Your task to perform on an android device: toggle notification dots Image 0: 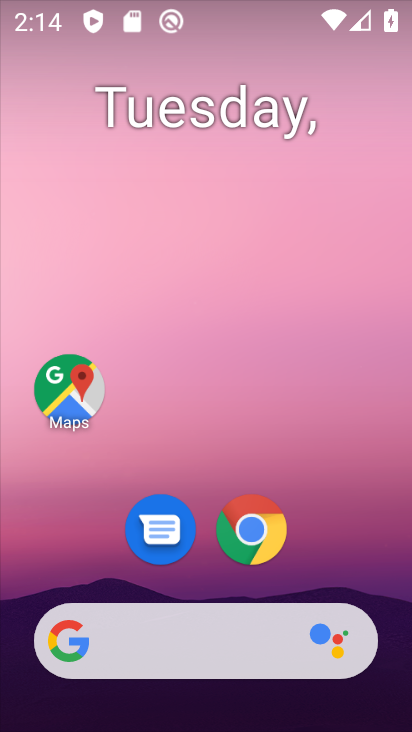
Step 0: drag from (396, 620) to (221, 53)
Your task to perform on an android device: toggle notification dots Image 1: 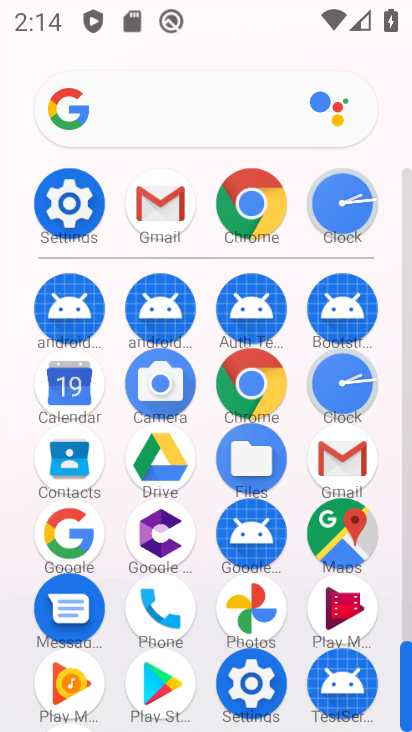
Step 1: click (58, 212)
Your task to perform on an android device: toggle notification dots Image 2: 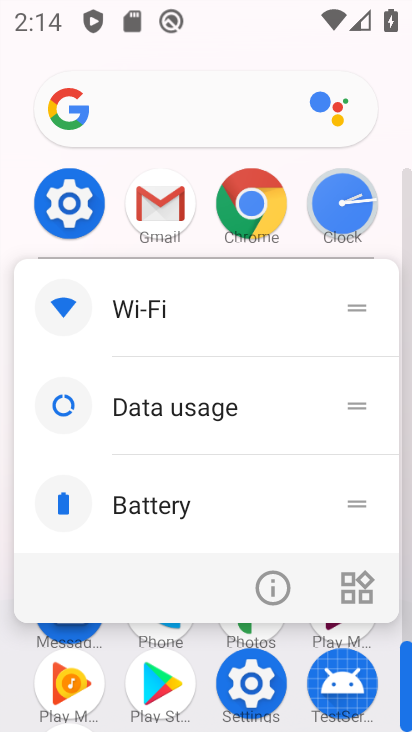
Step 2: click (63, 210)
Your task to perform on an android device: toggle notification dots Image 3: 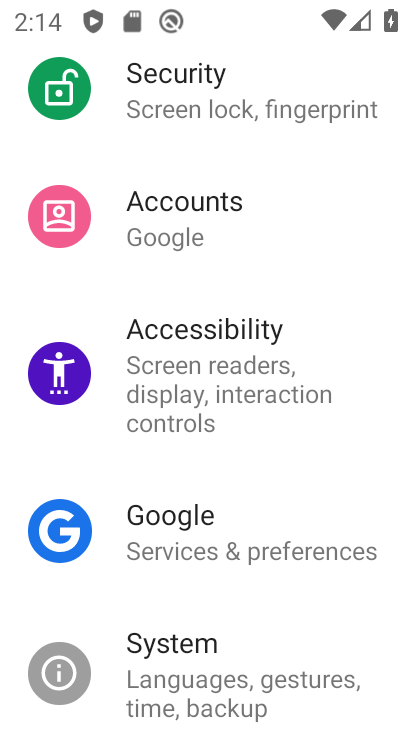
Step 3: drag from (214, 174) to (235, 606)
Your task to perform on an android device: toggle notification dots Image 4: 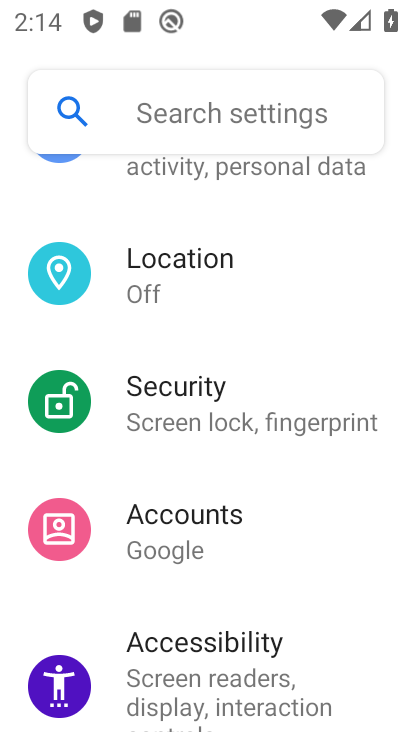
Step 4: drag from (236, 217) to (255, 601)
Your task to perform on an android device: toggle notification dots Image 5: 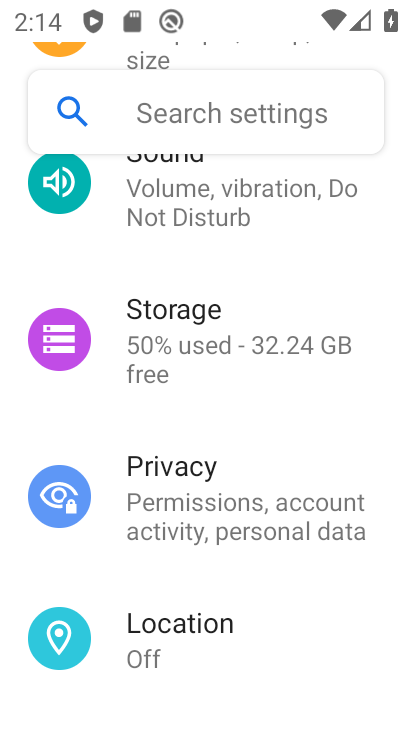
Step 5: drag from (162, 245) to (174, 606)
Your task to perform on an android device: toggle notification dots Image 6: 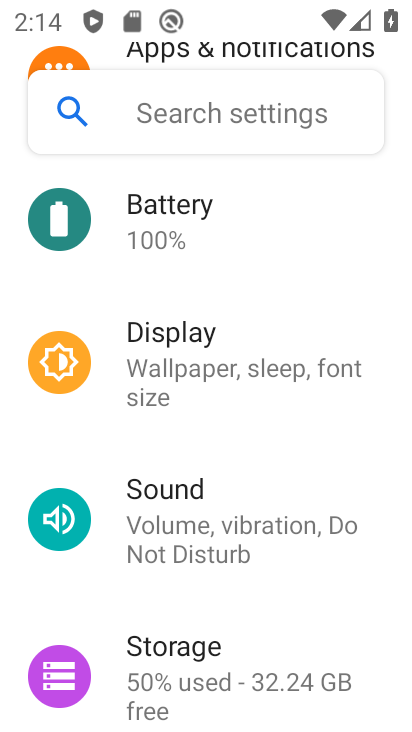
Step 6: drag from (153, 279) to (174, 699)
Your task to perform on an android device: toggle notification dots Image 7: 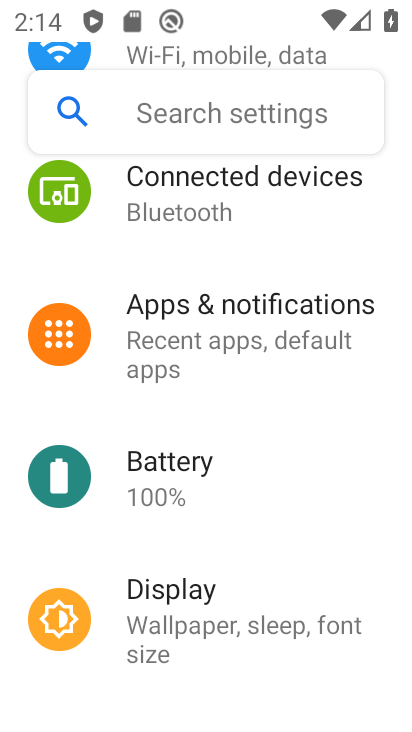
Step 7: click (285, 334)
Your task to perform on an android device: toggle notification dots Image 8: 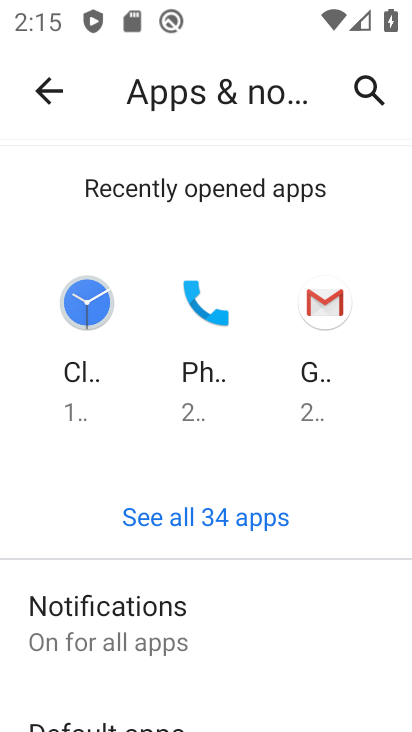
Step 8: click (244, 615)
Your task to perform on an android device: toggle notification dots Image 9: 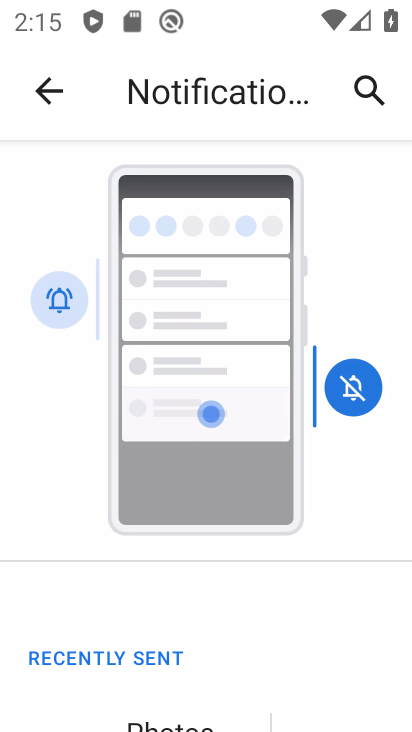
Step 9: drag from (246, 638) to (223, 79)
Your task to perform on an android device: toggle notification dots Image 10: 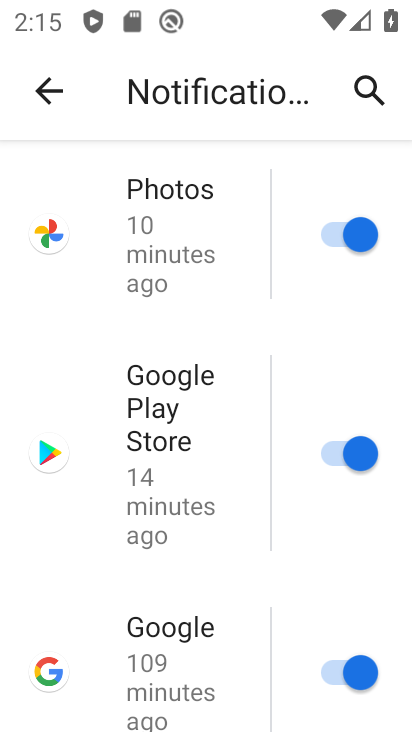
Step 10: drag from (170, 599) to (216, 143)
Your task to perform on an android device: toggle notification dots Image 11: 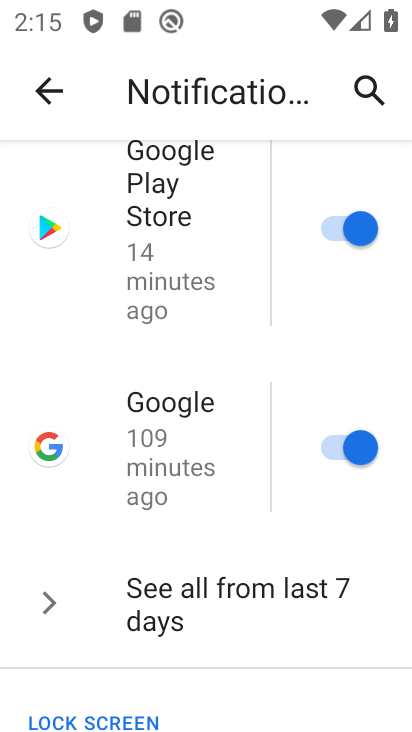
Step 11: drag from (168, 599) to (243, 101)
Your task to perform on an android device: toggle notification dots Image 12: 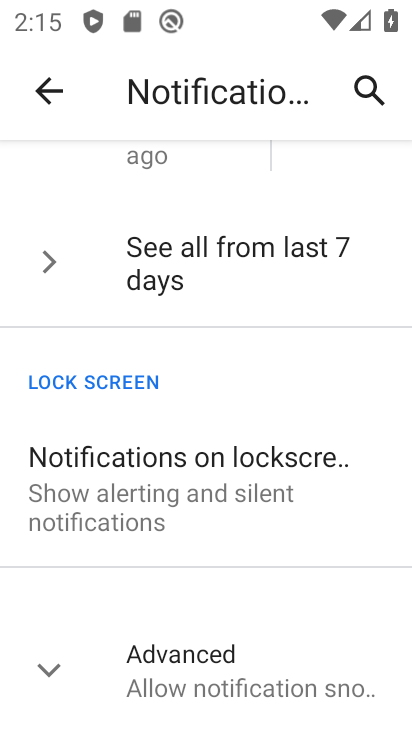
Step 12: click (34, 675)
Your task to perform on an android device: toggle notification dots Image 13: 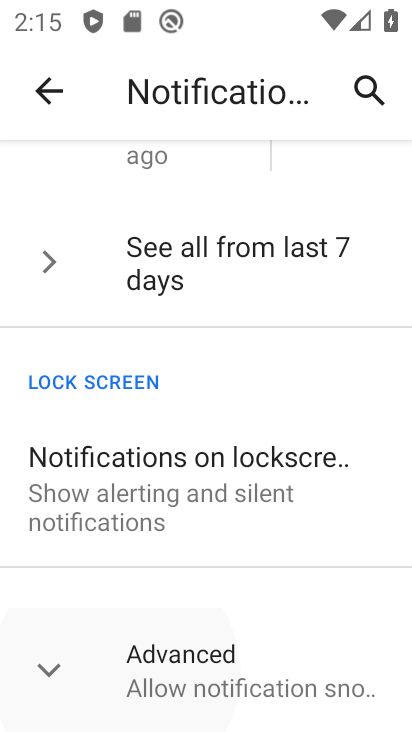
Step 13: drag from (227, 619) to (259, 201)
Your task to perform on an android device: toggle notification dots Image 14: 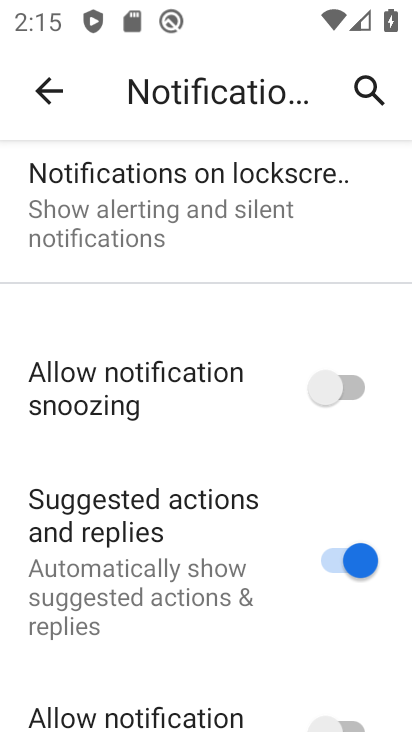
Step 14: drag from (261, 594) to (272, 200)
Your task to perform on an android device: toggle notification dots Image 15: 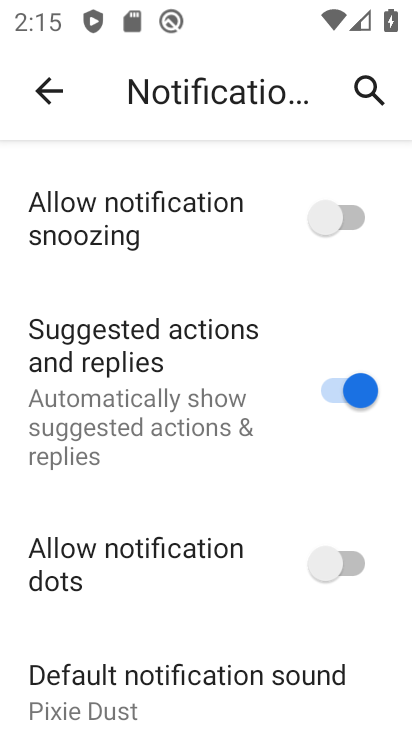
Step 15: click (256, 575)
Your task to perform on an android device: toggle notification dots Image 16: 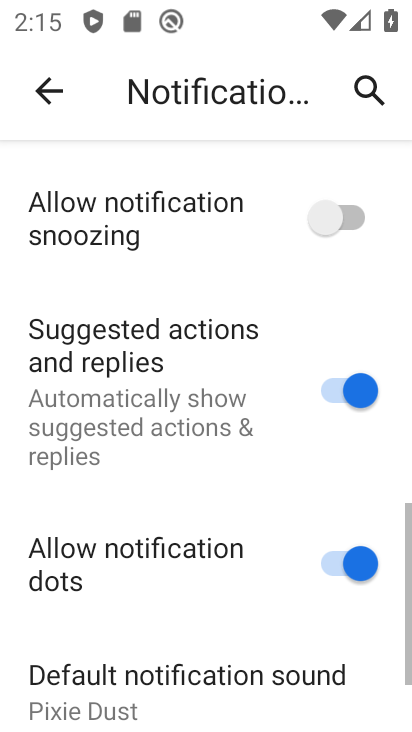
Step 16: task complete